Your task to perform on an android device: Go to eBay Image 0: 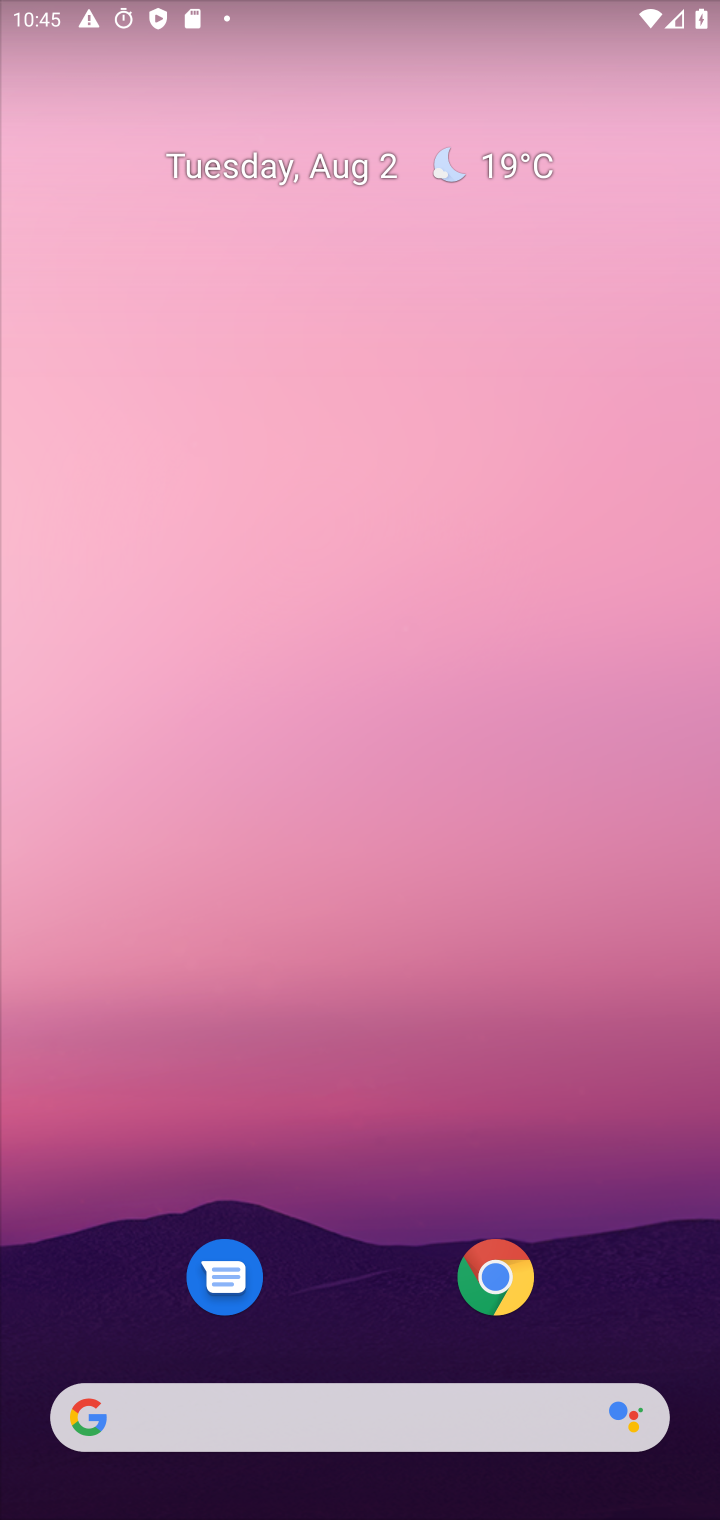
Step 0: click (83, 1419)
Your task to perform on an android device: Go to eBay Image 1: 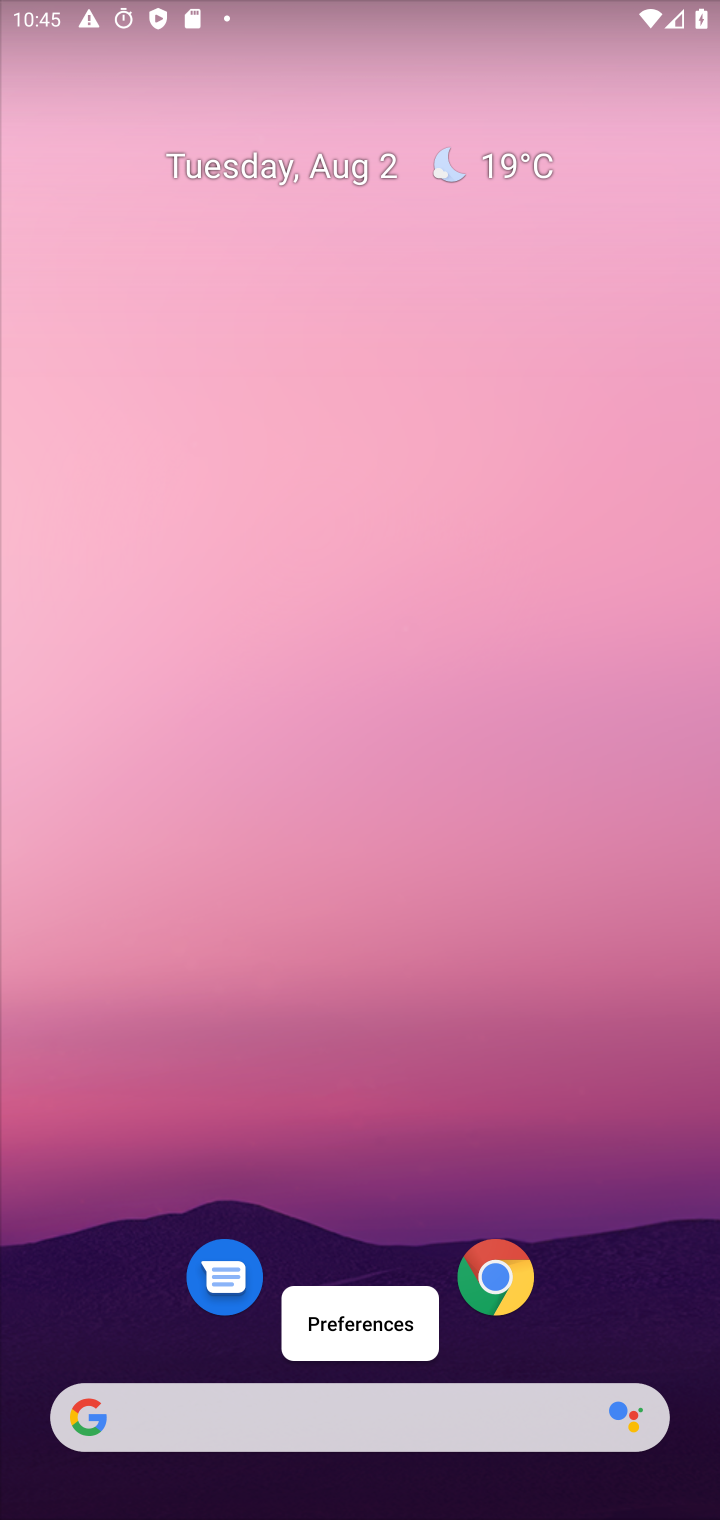
Step 1: click (98, 1425)
Your task to perform on an android device: Go to eBay Image 2: 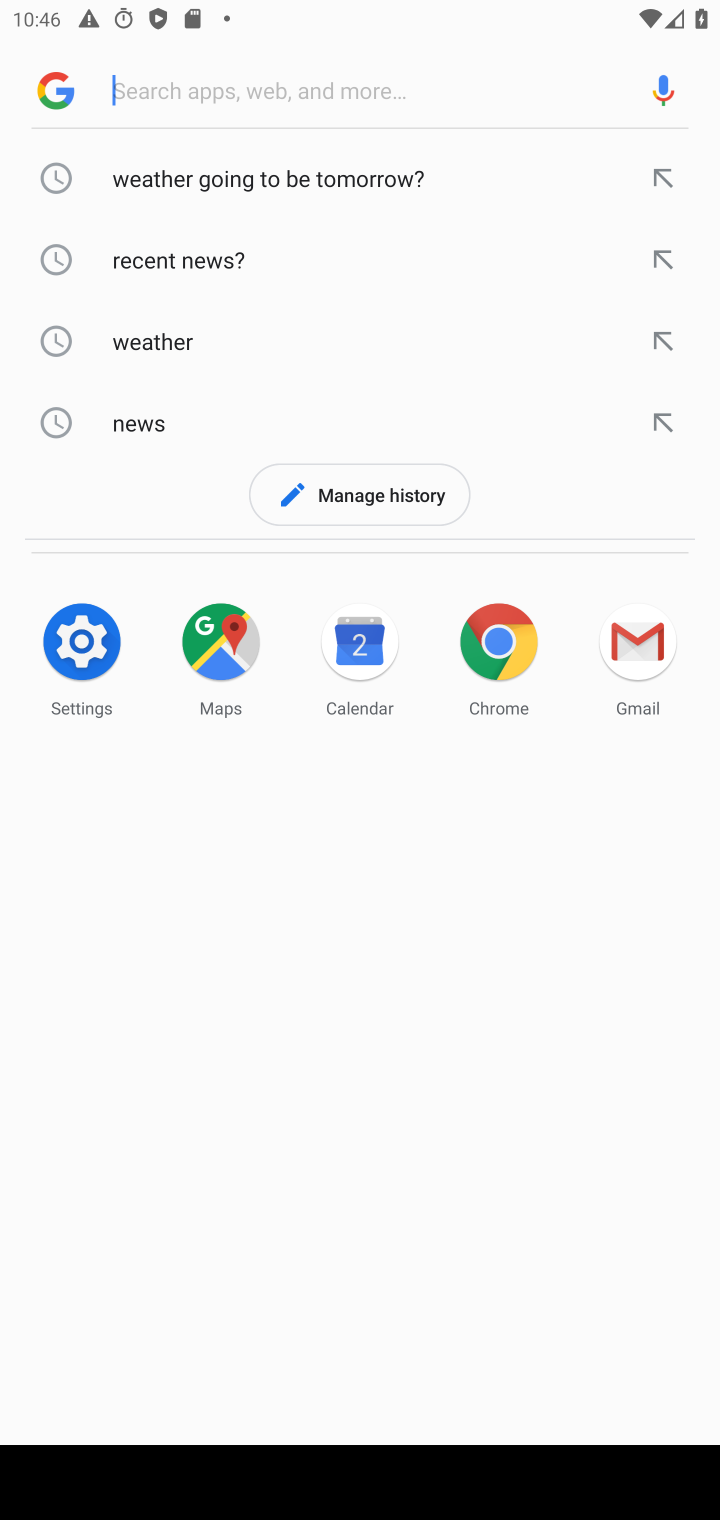
Step 2: type "eBay"
Your task to perform on an android device: Go to eBay Image 3: 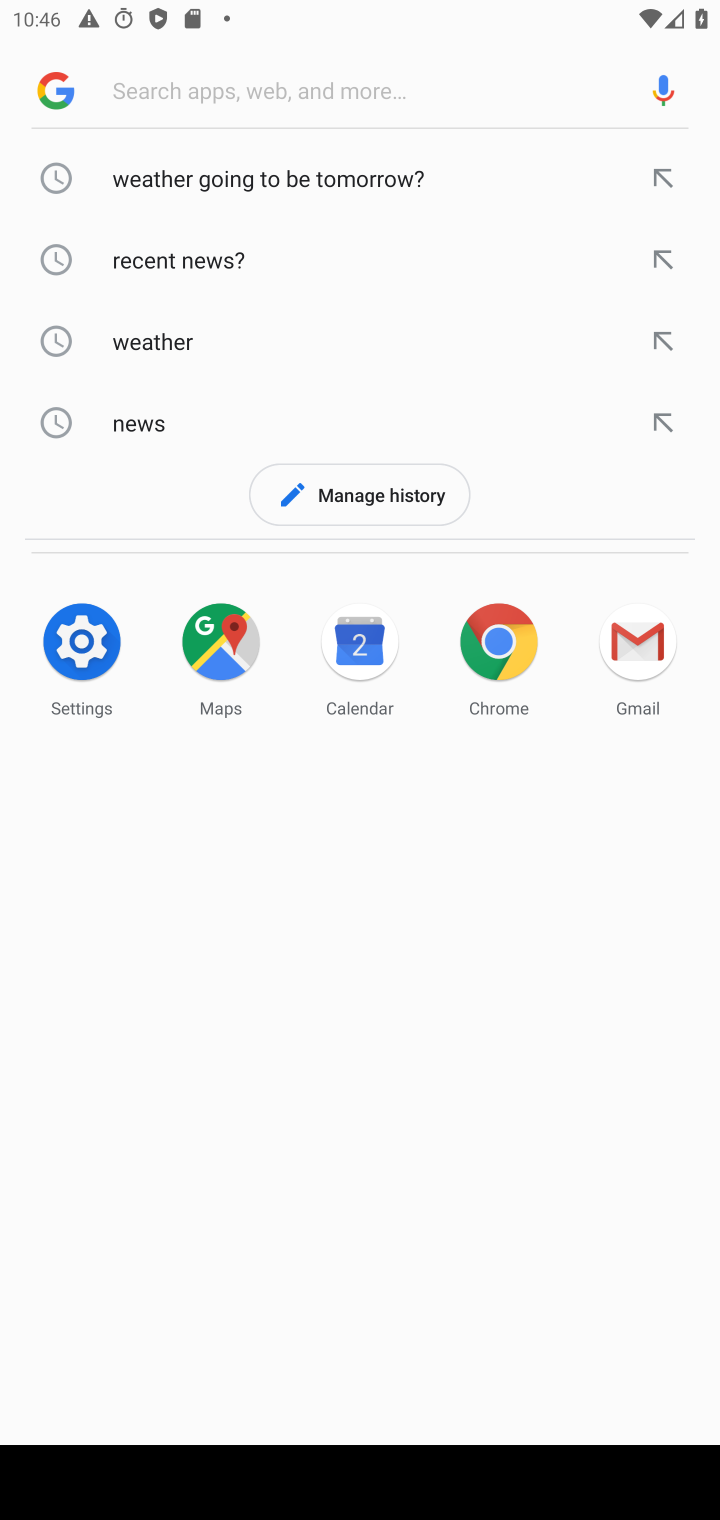
Step 3: click (193, 79)
Your task to perform on an android device: Go to eBay Image 4: 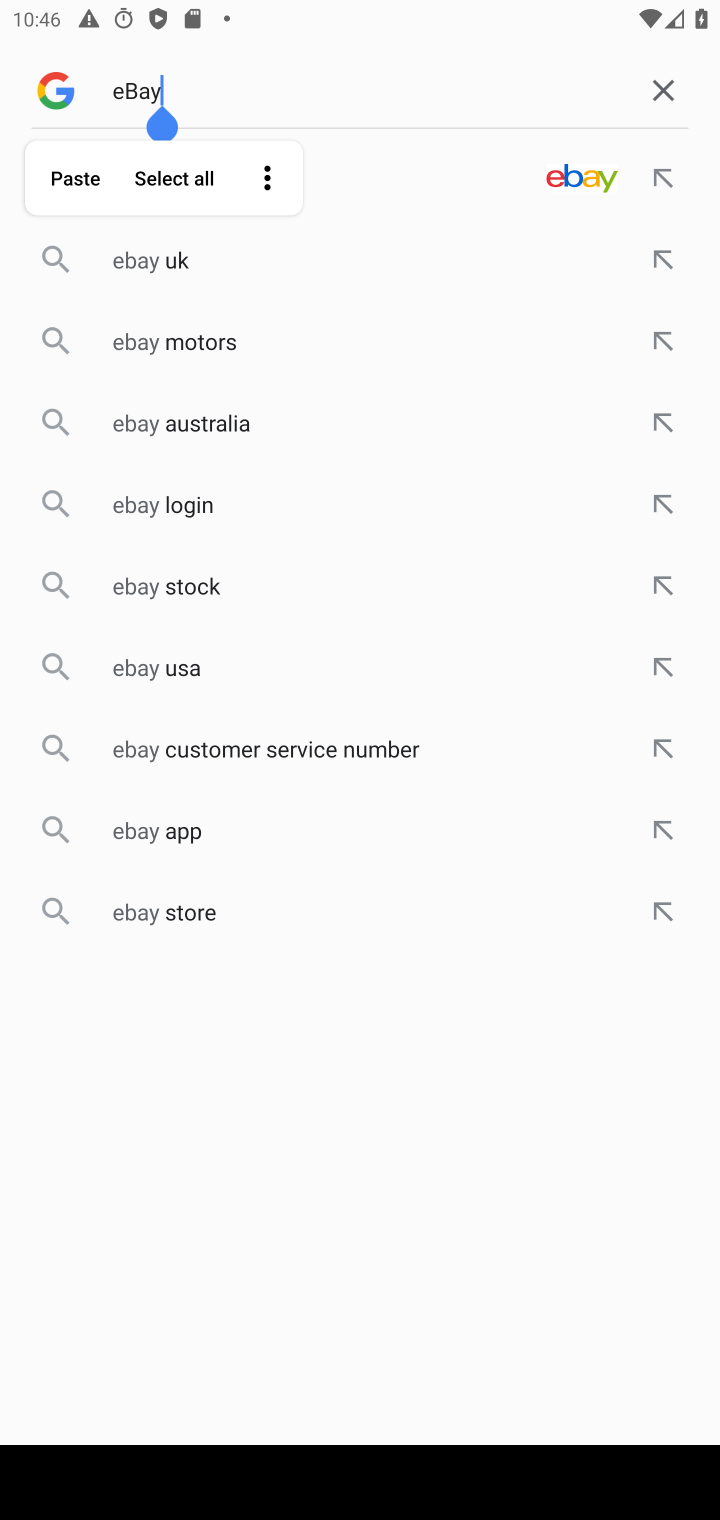
Step 4: click (598, 167)
Your task to perform on an android device: Go to eBay Image 5: 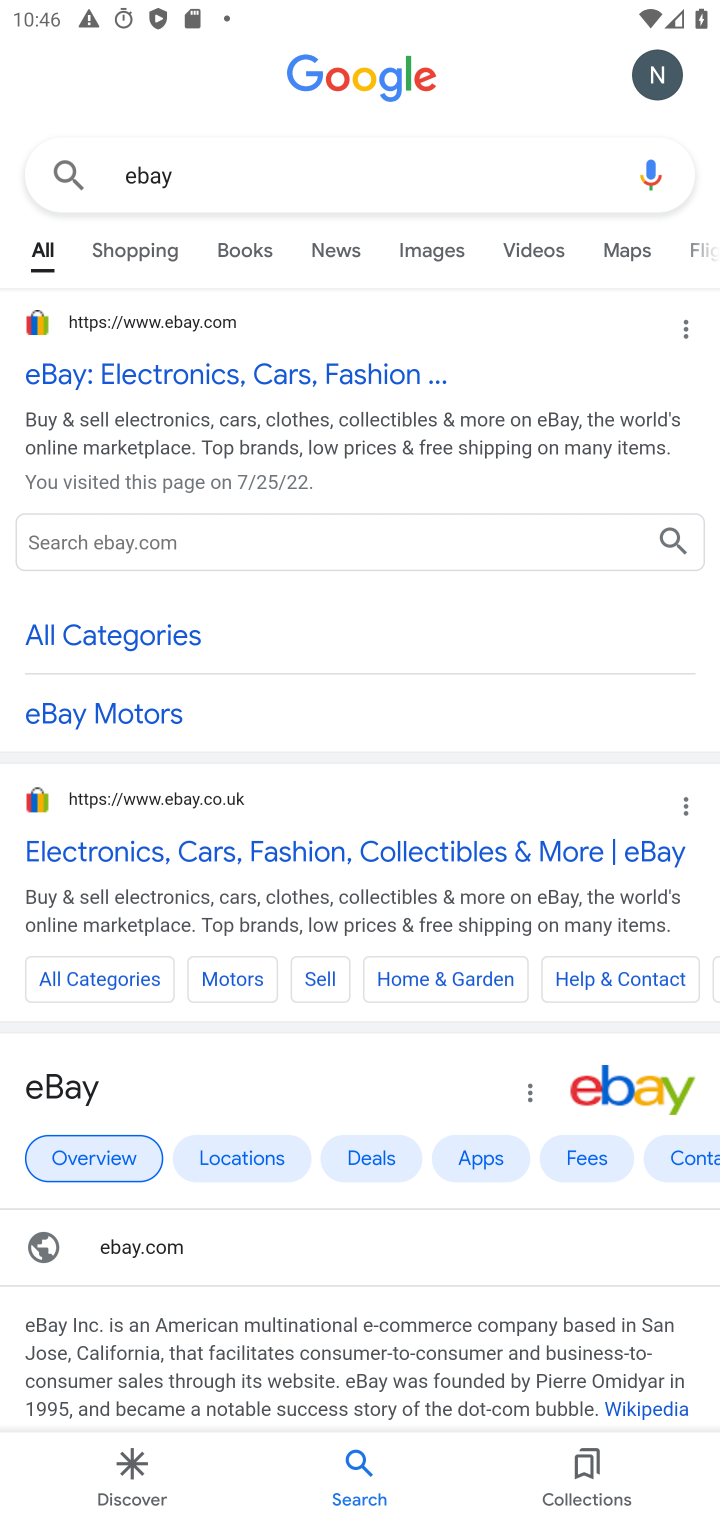
Step 5: click (129, 361)
Your task to perform on an android device: Go to eBay Image 6: 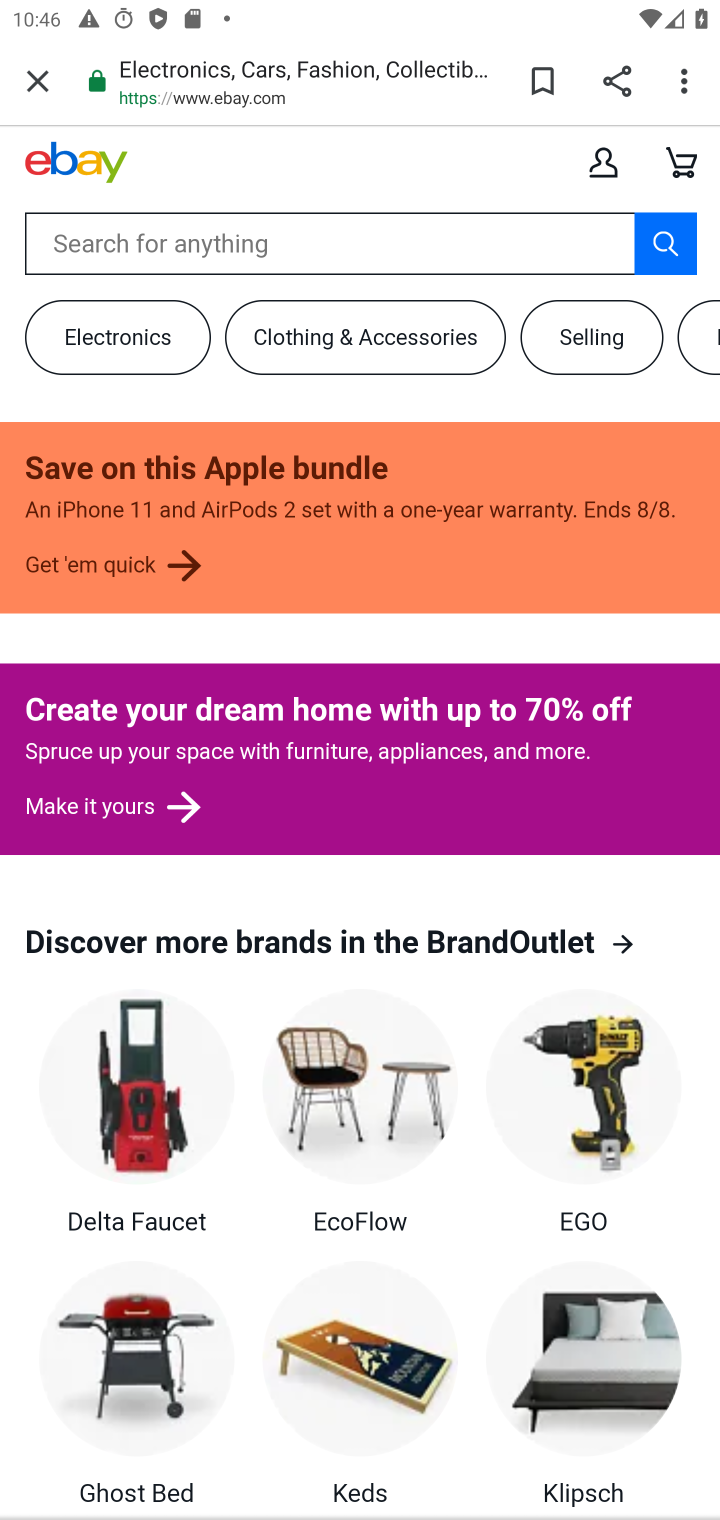
Step 6: task complete